Your task to perform on an android device: toggle sleep mode Image 0: 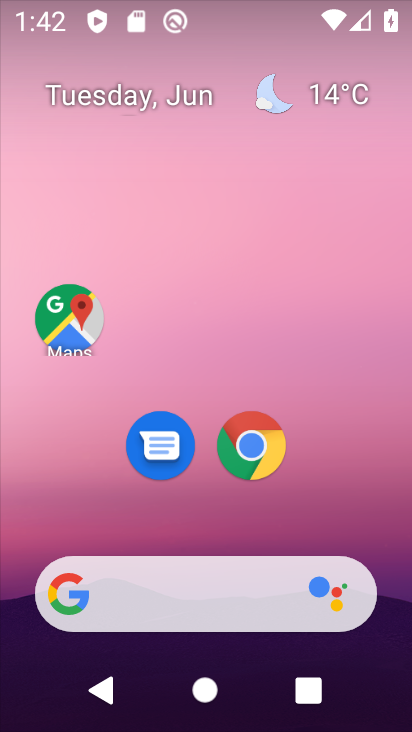
Step 0: drag from (352, 530) to (332, 248)
Your task to perform on an android device: toggle sleep mode Image 1: 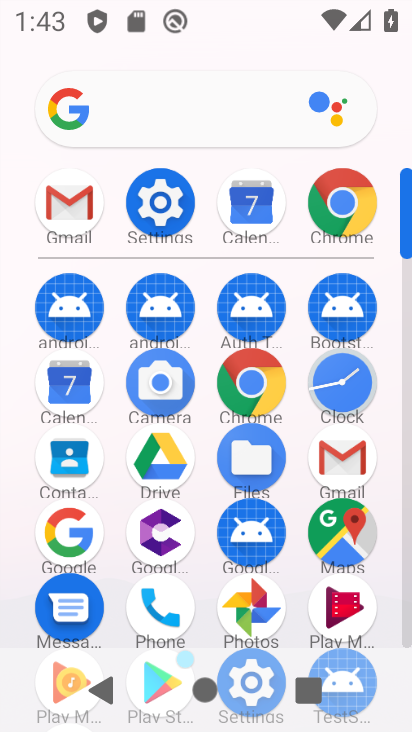
Step 1: click (143, 213)
Your task to perform on an android device: toggle sleep mode Image 2: 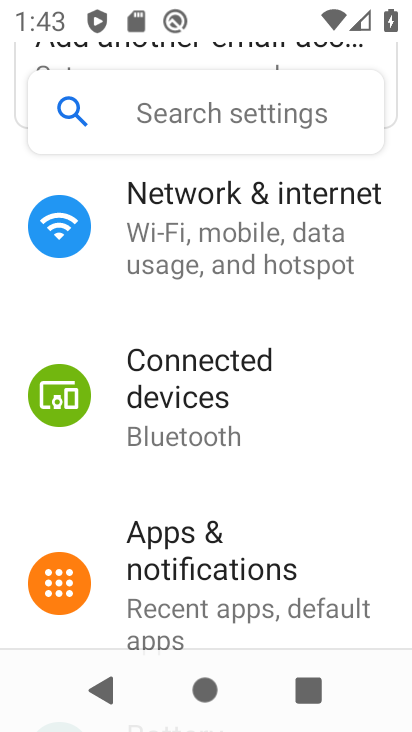
Step 2: click (168, 103)
Your task to perform on an android device: toggle sleep mode Image 3: 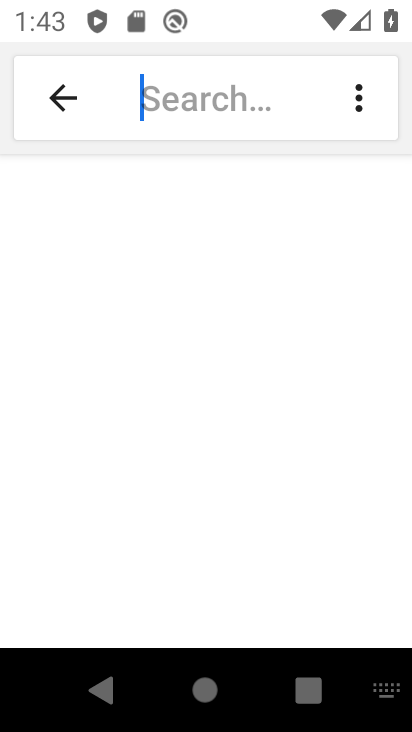
Step 3: type "sleep mode"
Your task to perform on an android device: toggle sleep mode Image 4: 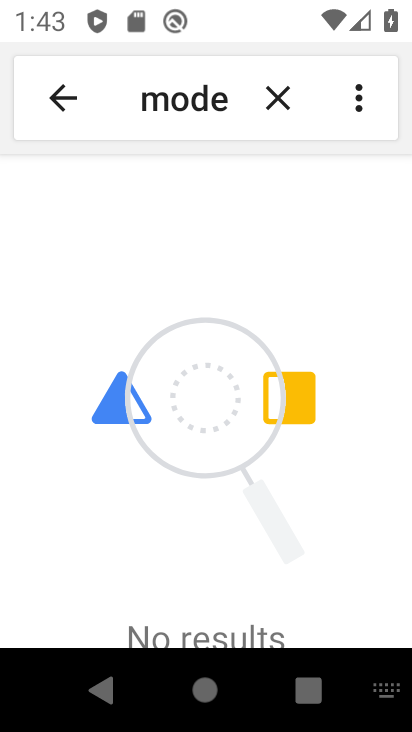
Step 4: task complete